Your task to perform on an android device: Open Android settings Image 0: 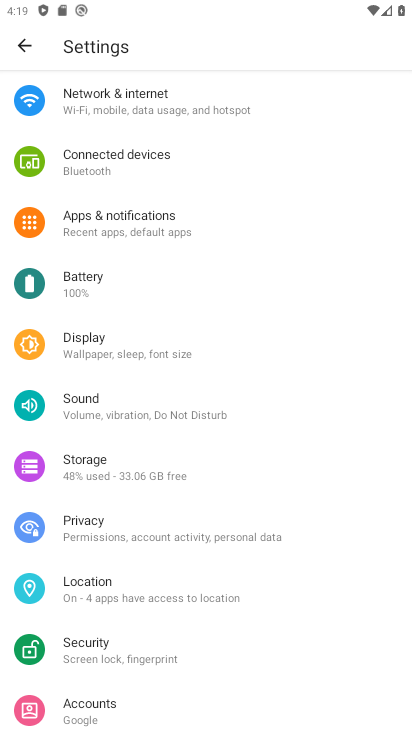
Step 0: drag from (197, 648) to (250, 274)
Your task to perform on an android device: Open Android settings Image 1: 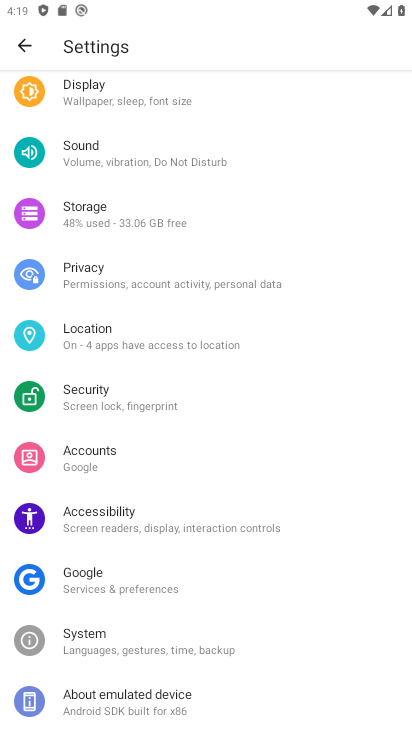
Step 1: click (192, 642)
Your task to perform on an android device: Open Android settings Image 2: 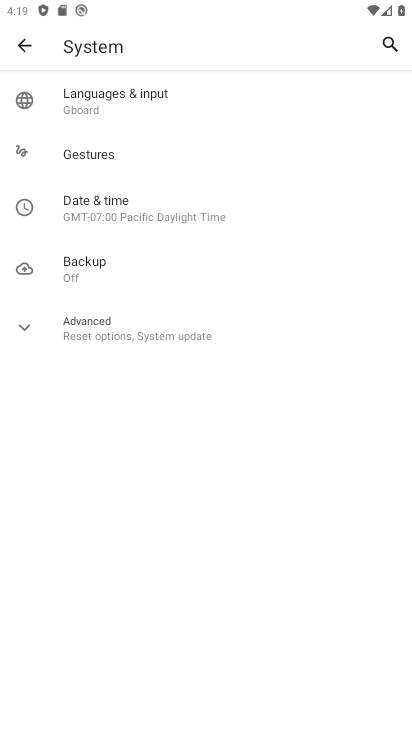
Step 2: task complete